Your task to perform on an android device: all mails in gmail Image 0: 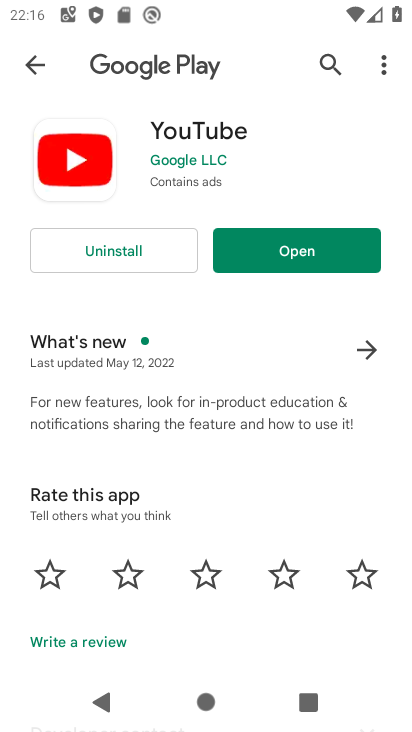
Step 0: press home button
Your task to perform on an android device: all mails in gmail Image 1: 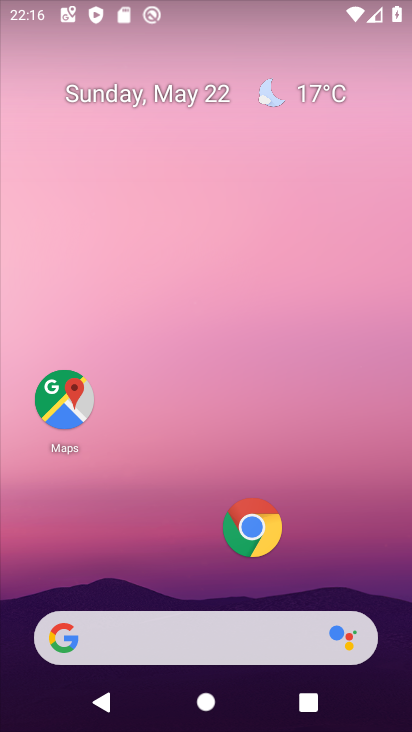
Step 1: drag from (162, 567) to (90, 82)
Your task to perform on an android device: all mails in gmail Image 2: 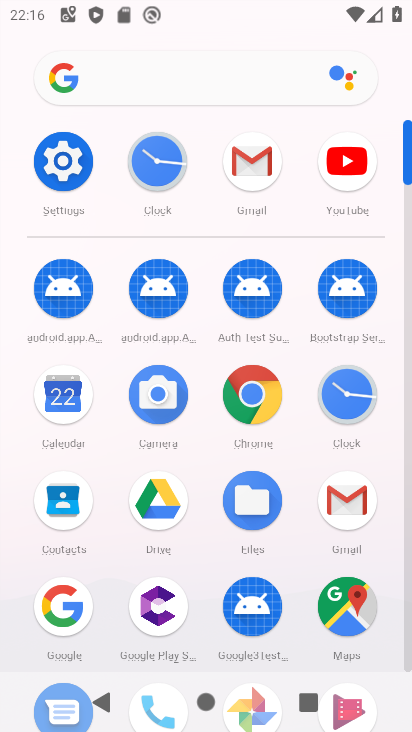
Step 2: click (234, 162)
Your task to perform on an android device: all mails in gmail Image 3: 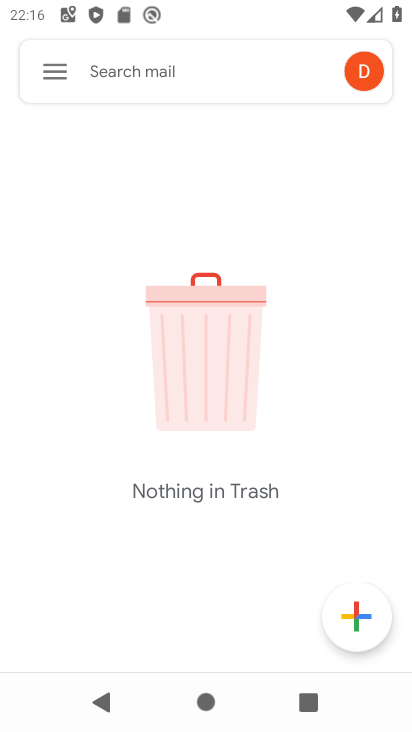
Step 3: click (46, 69)
Your task to perform on an android device: all mails in gmail Image 4: 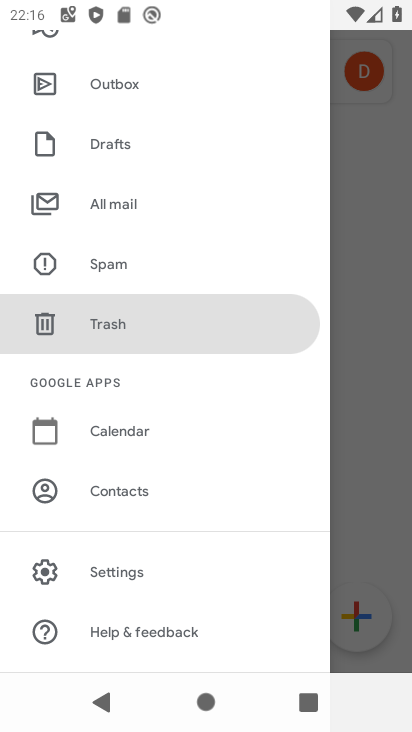
Step 4: click (131, 199)
Your task to perform on an android device: all mails in gmail Image 5: 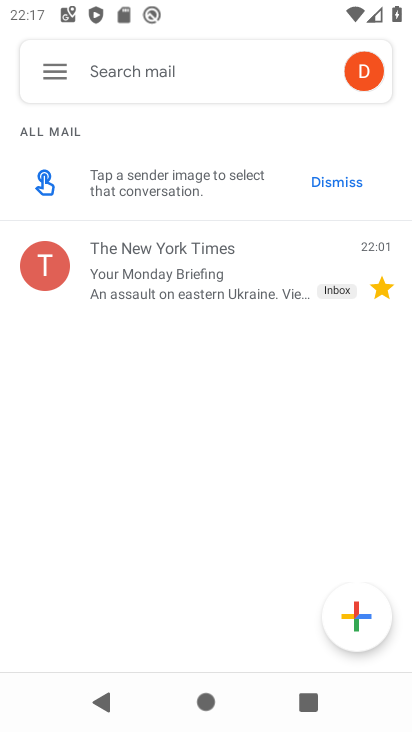
Step 5: task complete